Your task to perform on an android device: toggle priority inbox in the gmail app Image 0: 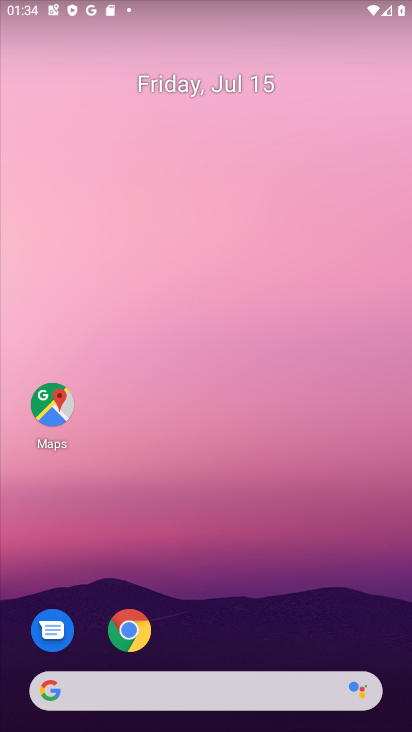
Step 0: drag from (277, 601) to (310, 324)
Your task to perform on an android device: toggle priority inbox in the gmail app Image 1: 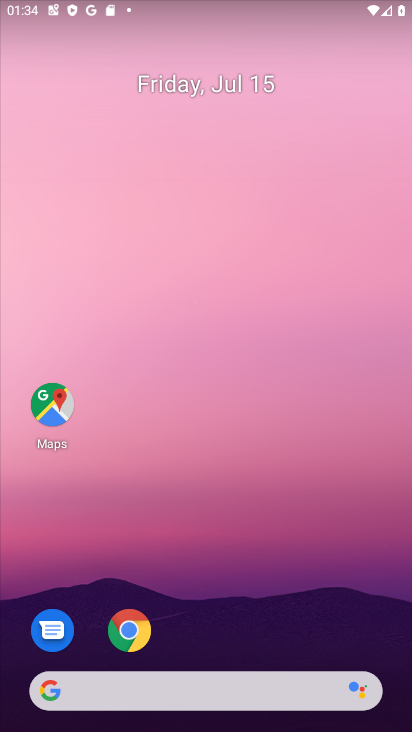
Step 1: drag from (248, 660) to (246, 275)
Your task to perform on an android device: toggle priority inbox in the gmail app Image 2: 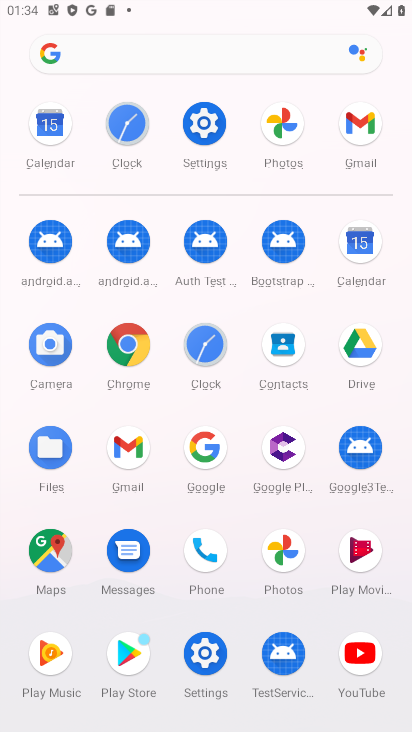
Step 2: click (339, 150)
Your task to perform on an android device: toggle priority inbox in the gmail app Image 3: 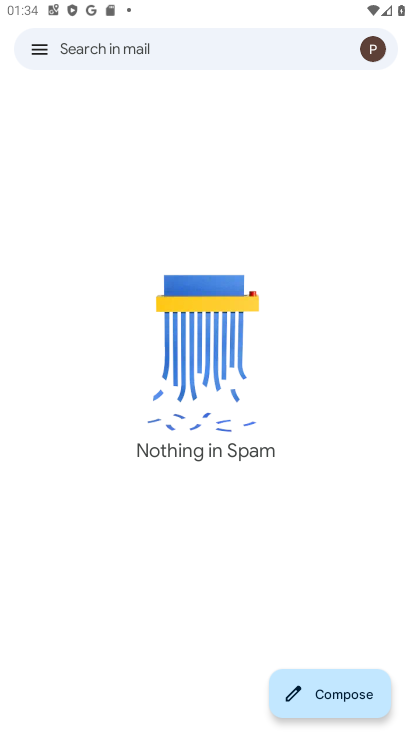
Step 3: task complete